Your task to perform on an android device: Go to CNN.com Image 0: 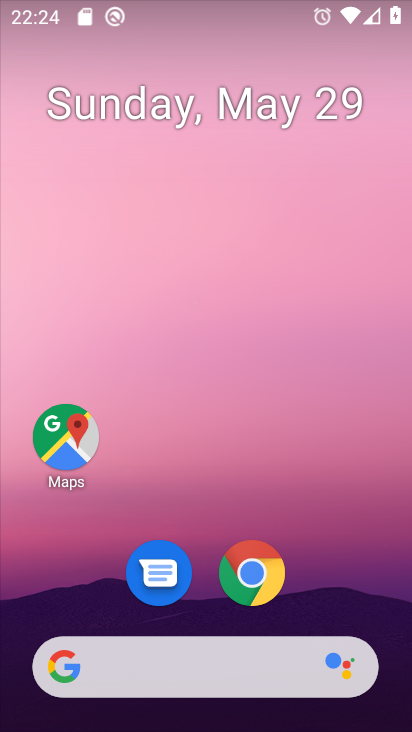
Step 0: click (202, 663)
Your task to perform on an android device: Go to CNN.com Image 1: 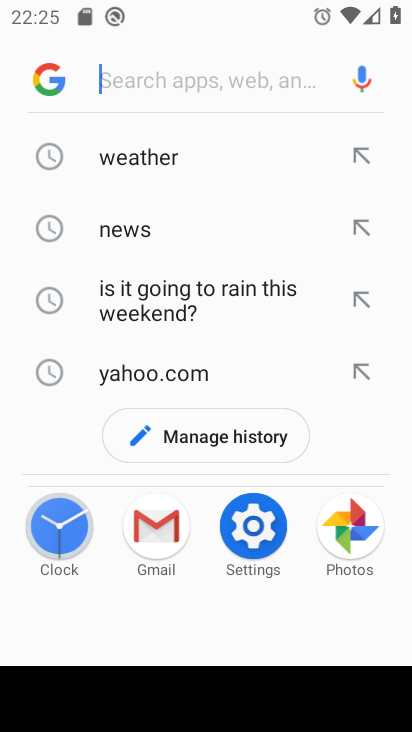
Step 1: type "cnn.com"
Your task to perform on an android device: Go to CNN.com Image 2: 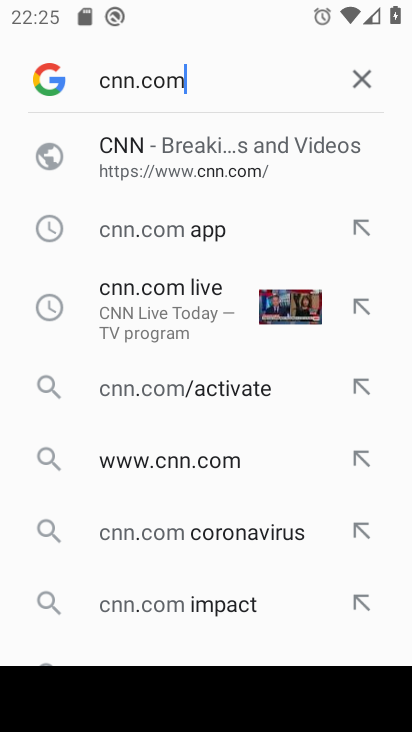
Step 2: click (136, 157)
Your task to perform on an android device: Go to CNN.com Image 3: 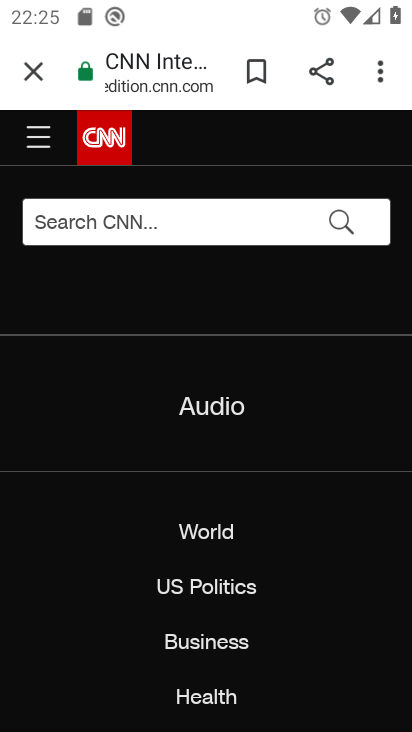
Step 3: task complete